Your task to perform on an android device: move a message to another label in the gmail app Image 0: 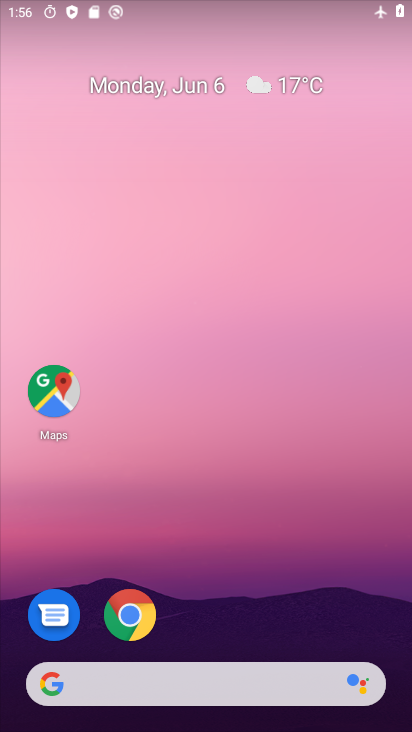
Step 0: drag from (206, 530) to (269, 67)
Your task to perform on an android device: move a message to another label in the gmail app Image 1: 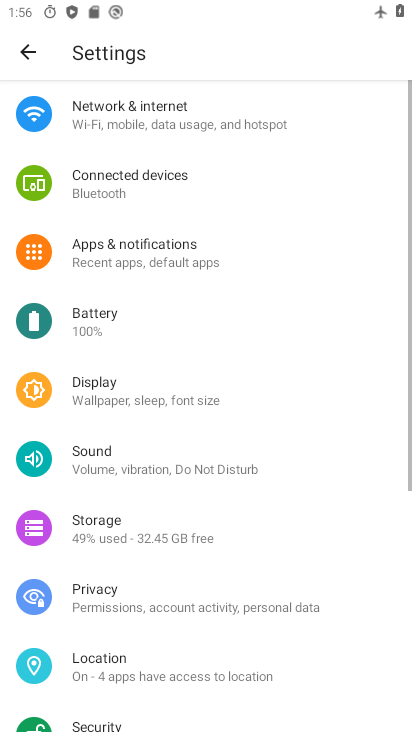
Step 1: press home button
Your task to perform on an android device: move a message to another label in the gmail app Image 2: 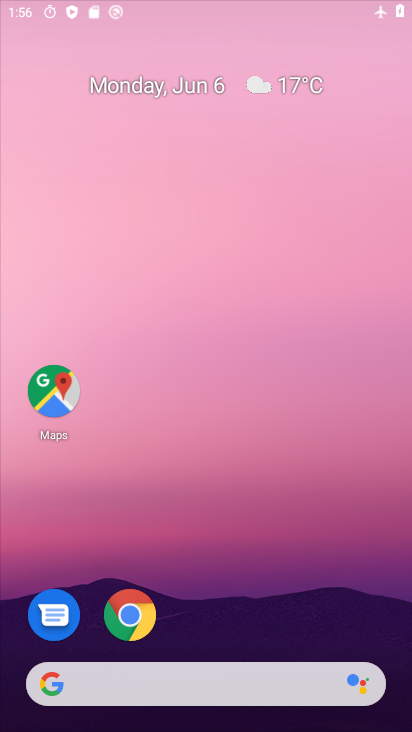
Step 2: drag from (305, 511) to (404, 21)
Your task to perform on an android device: move a message to another label in the gmail app Image 3: 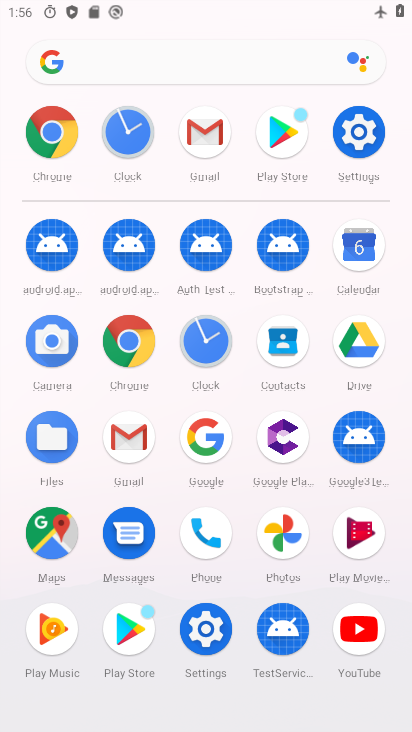
Step 3: click (127, 442)
Your task to perform on an android device: move a message to another label in the gmail app Image 4: 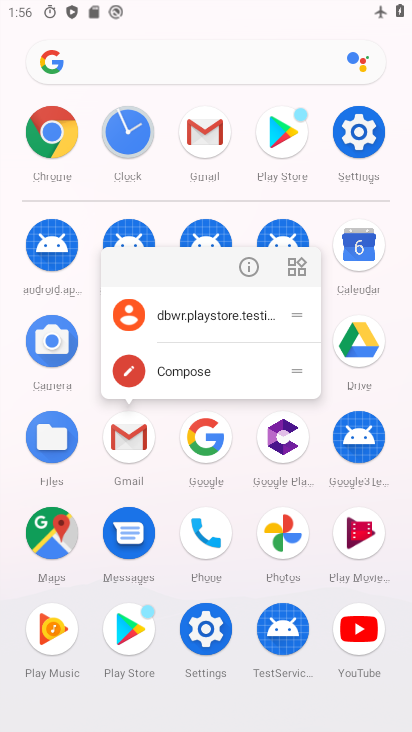
Step 4: click (251, 258)
Your task to perform on an android device: move a message to another label in the gmail app Image 5: 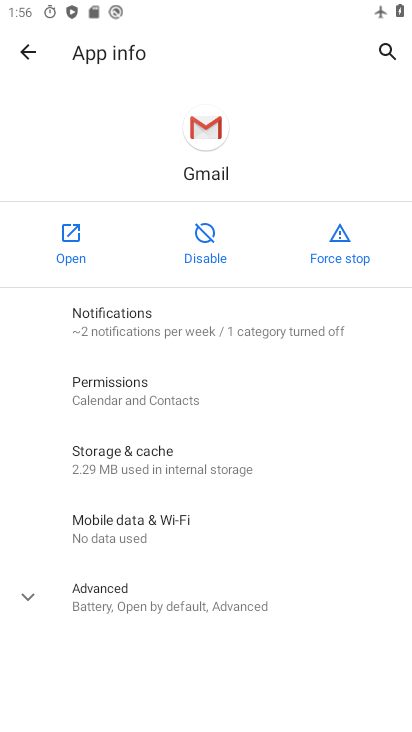
Step 5: click (68, 233)
Your task to perform on an android device: move a message to another label in the gmail app Image 6: 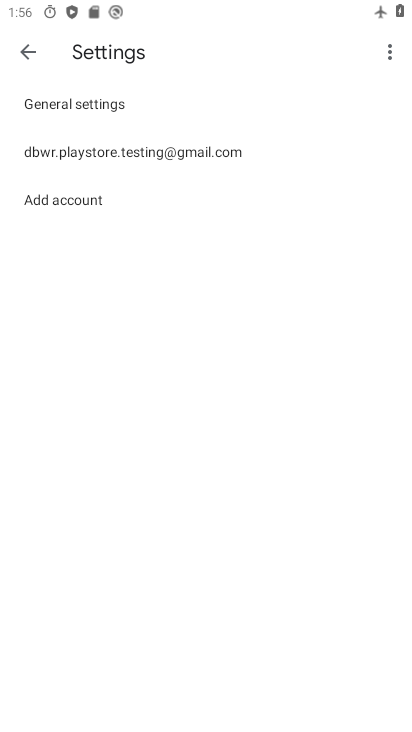
Step 6: click (150, 152)
Your task to perform on an android device: move a message to another label in the gmail app Image 7: 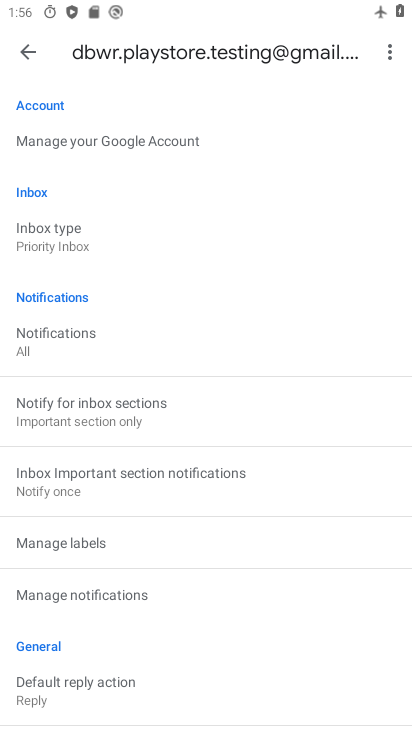
Step 7: click (26, 46)
Your task to perform on an android device: move a message to another label in the gmail app Image 8: 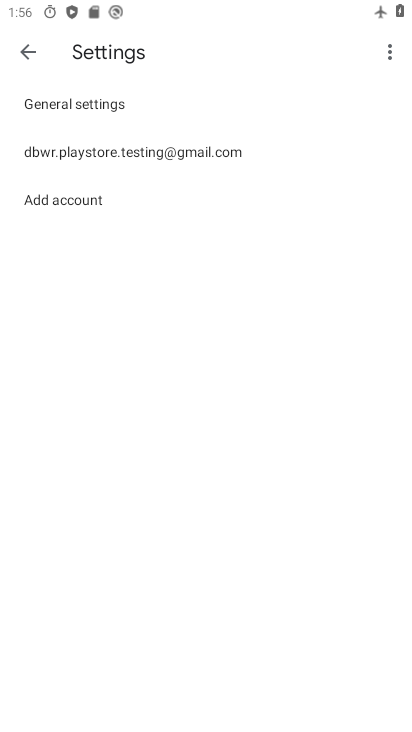
Step 8: click (26, 46)
Your task to perform on an android device: move a message to another label in the gmail app Image 9: 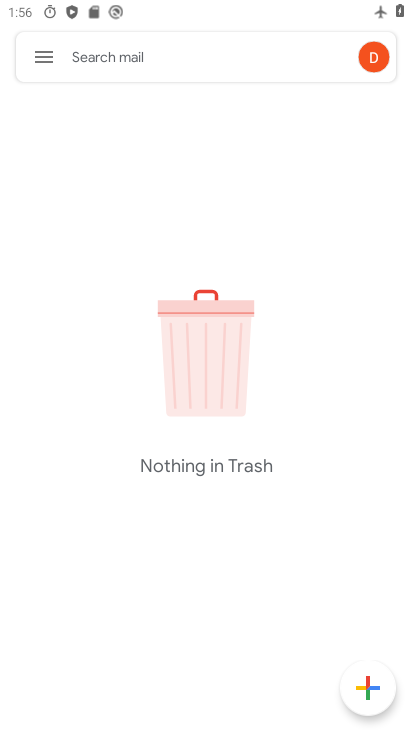
Step 9: task complete